Your task to perform on an android device: turn on bluetooth scan Image 0: 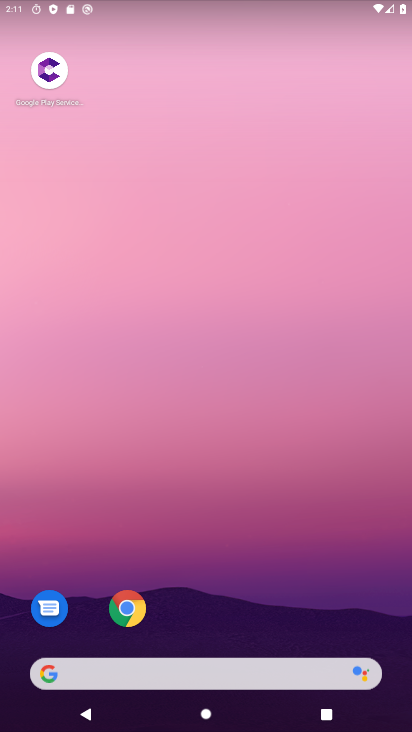
Step 0: drag from (352, 599) to (283, 97)
Your task to perform on an android device: turn on bluetooth scan Image 1: 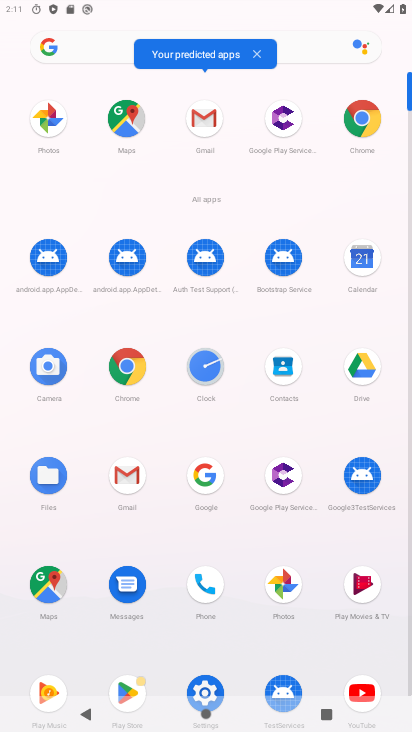
Step 1: click (203, 681)
Your task to perform on an android device: turn on bluetooth scan Image 2: 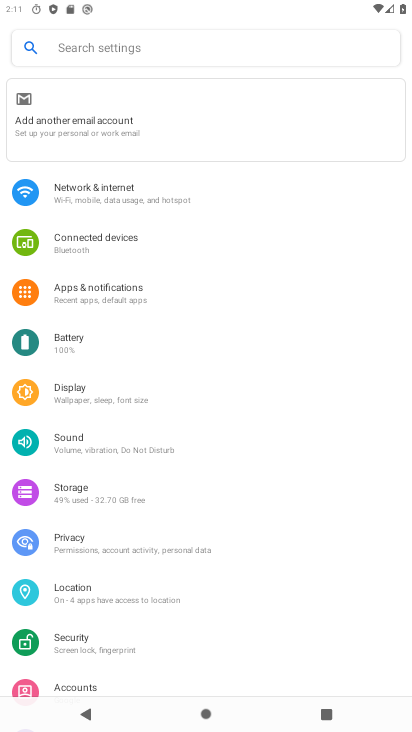
Step 2: click (73, 588)
Your task to perform on an android device: turn on bluetooth scan Image 3: 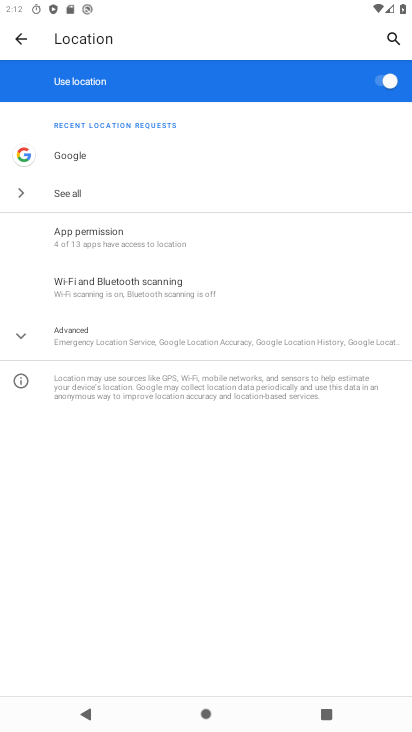
Step 3: click (127, 275)
Your task to perform on an android device: turn on bluetooth scan Image 4: 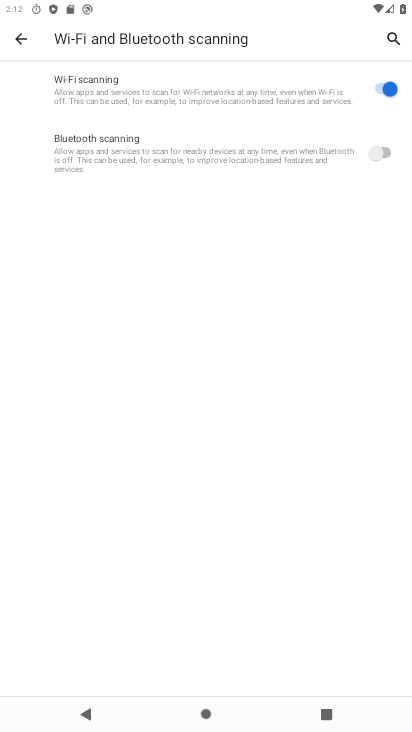
Step 4: click (389, 144)
Your task to perform on an android device: turn on bluetooth scan Image 5: 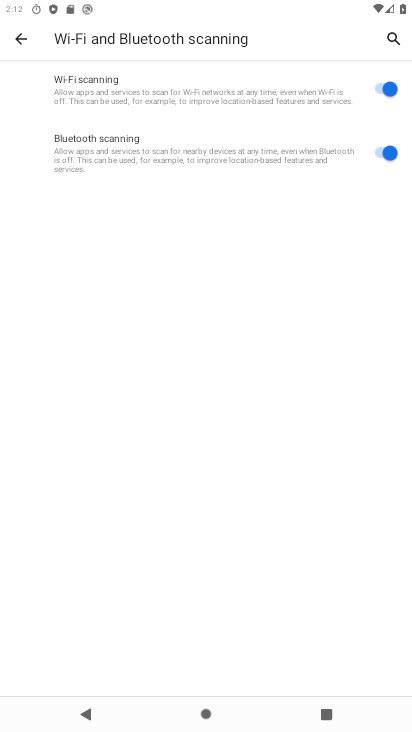
Step 5: task complete